Your task to perform on an android device: Open internet settings Image 0: 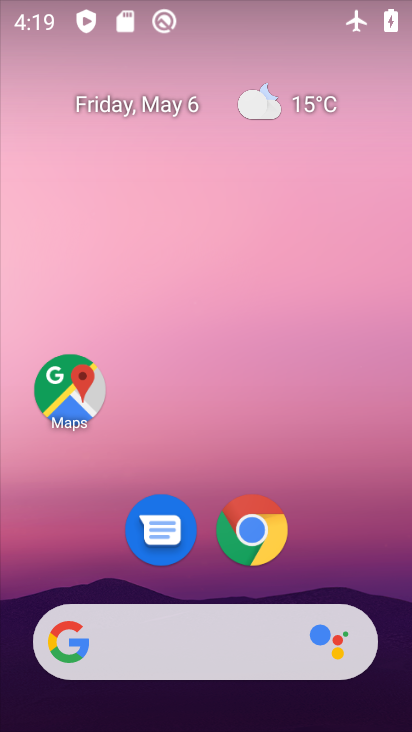
Step 0: click (398, 130)
Your task to perform on an android device: Open internet settings Image 1: 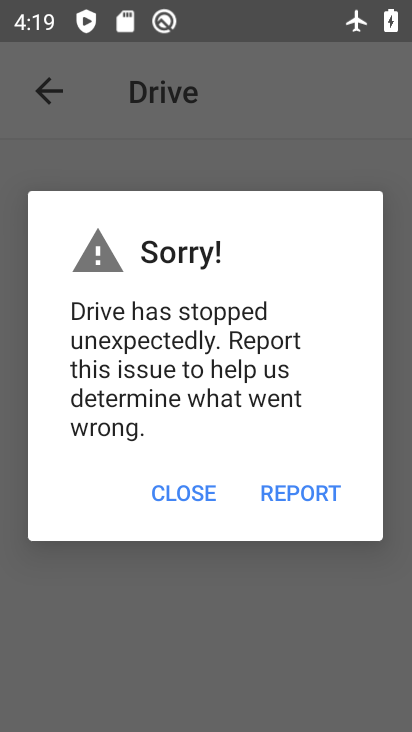
Step 1: drag from (295, 537) to (331, 28)
Your task to perform on an android device: Open internet settings Image 2: 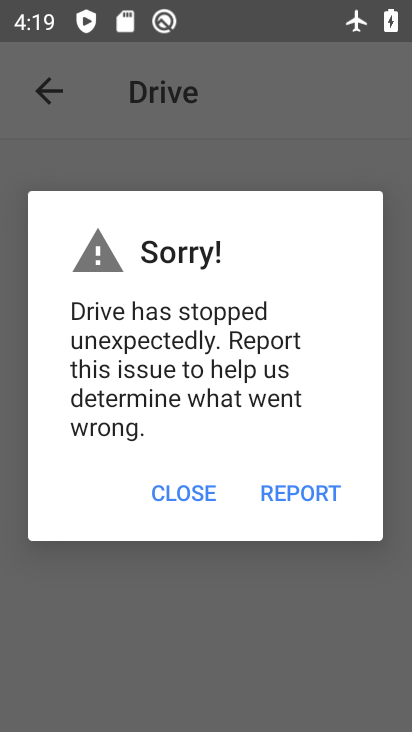
Step 2: press home button
Your task to perform on an android device: Open internet settings Image 3: 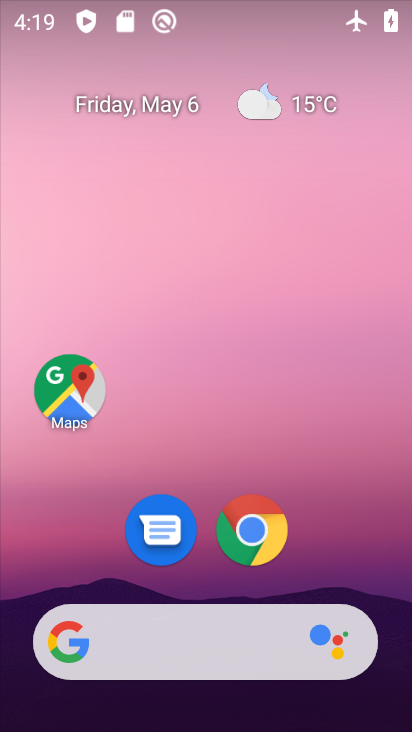
Step 3: drag from (336, 450) to (324, 58)
Your task to perform on an android device: Open internet settings Image 4: 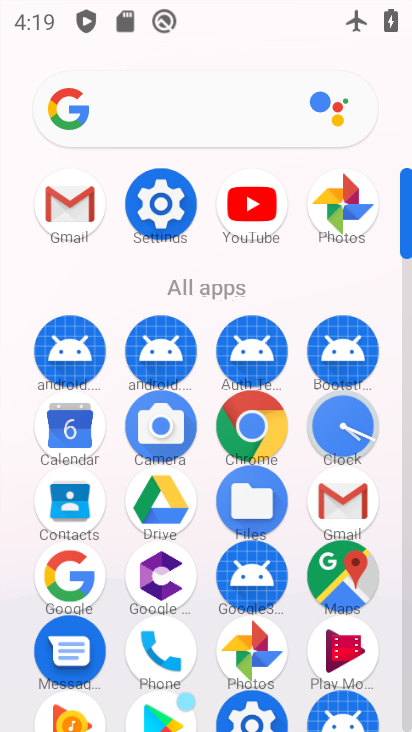
Step 4: click (154, 213)
Your task to perform on an android device: Open internet settings Image 5: 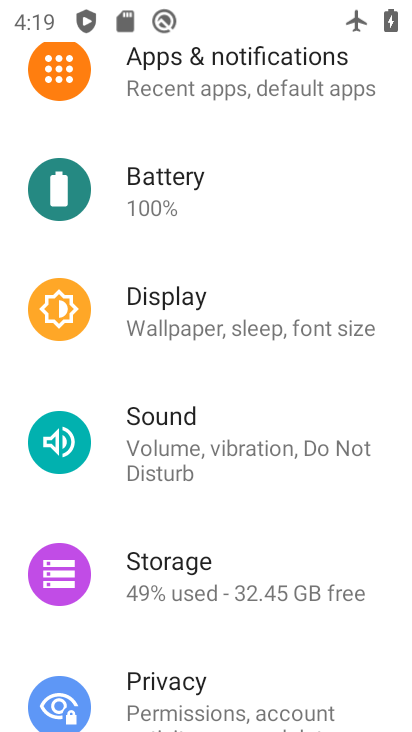
Step 5: drag from (267, 241) to (280, 575)
Your task to perform on an android device: Open internet settings Image 6: 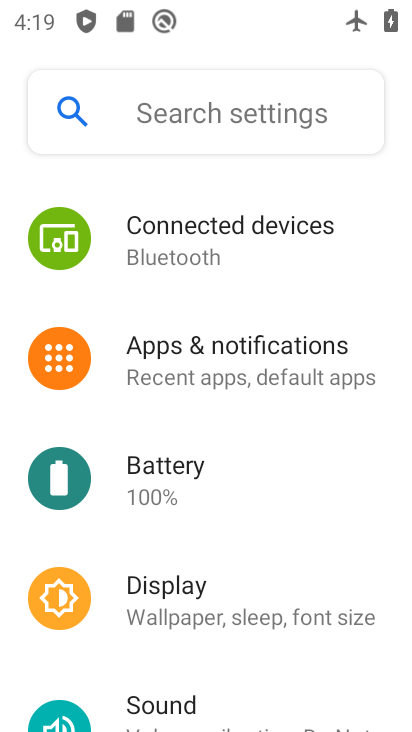
Step 6: click (138, 233)
Your task to perform on an android device: Open internet settings Image 7: 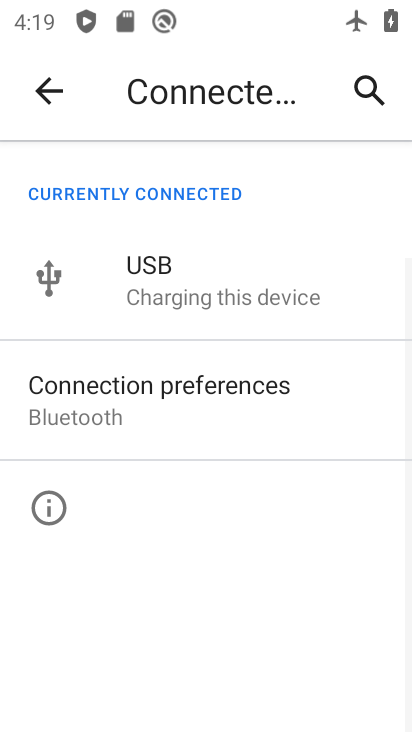
Step 7: click (70, 78)
Your task to perform on an android device: Open internet settings Image 8: 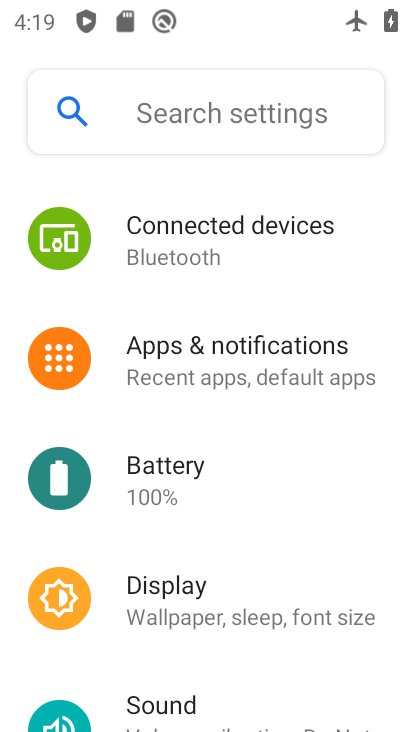
Step 8: drag from (115, 313) to (180, 524)
Your task to perform on an android device: Open internet settings Image 9: 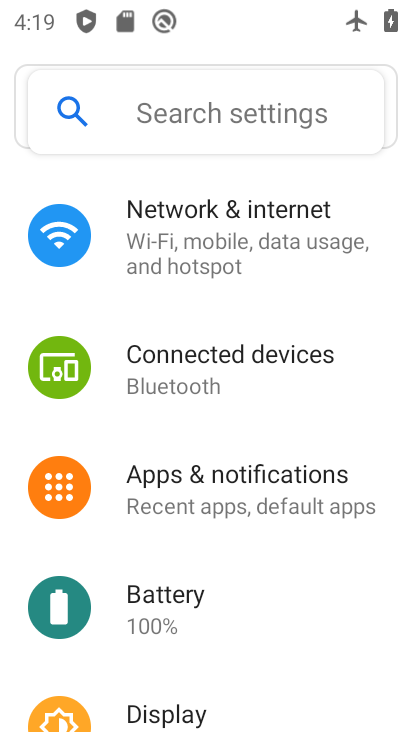
Step 9: drag from (210, 250) to (238, 524)
Your task to perform on an android device: Open internet settings Image 10: 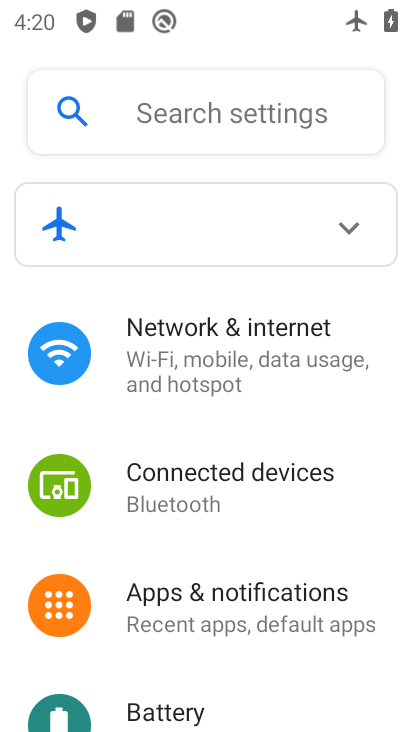
Step 10: click (187, 360)
Your task to perform on an android device: Open internet settings Image 11: 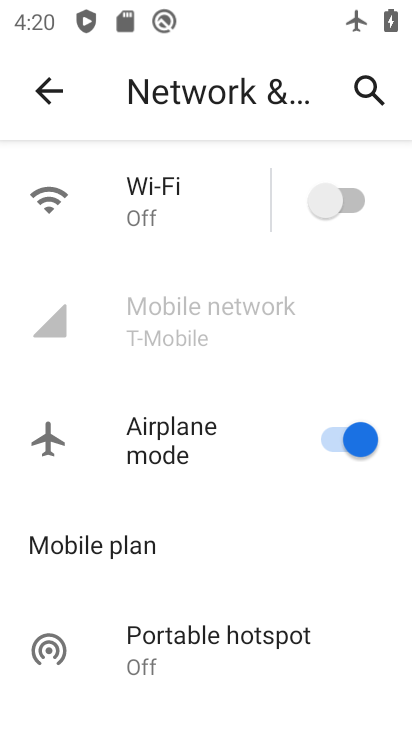
Step 11: click (165, 341)
Your task to perform on an android device: Open internet settings Image 12: 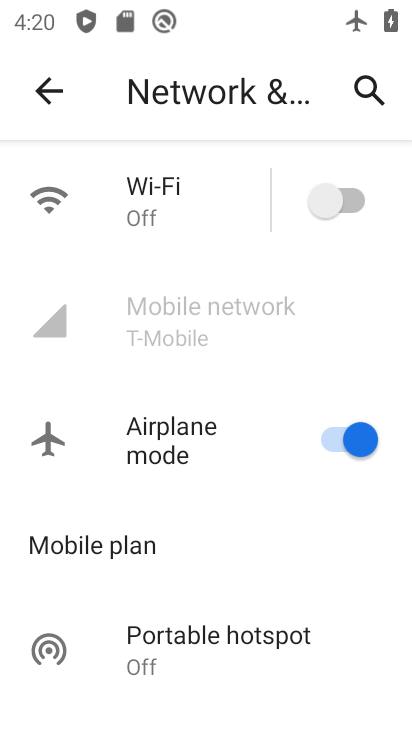
Step 12: task complete